Your task to perform on an android device: Set the phone to "Do not disturb". Image 0: 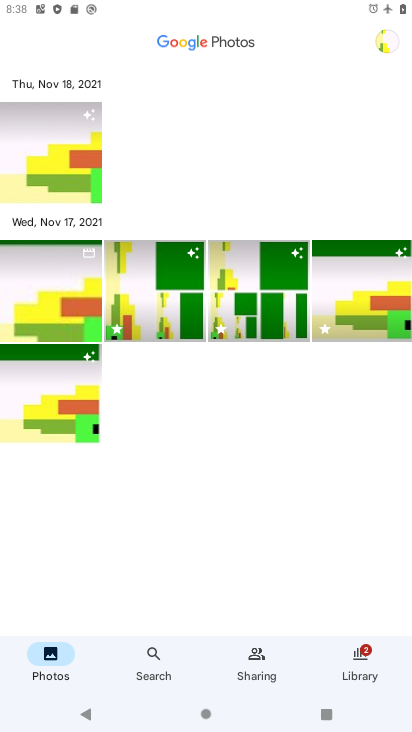
Step 0: press home button
Your task to perform on an android device: Set the phone to "Do not disturb". Image 1: 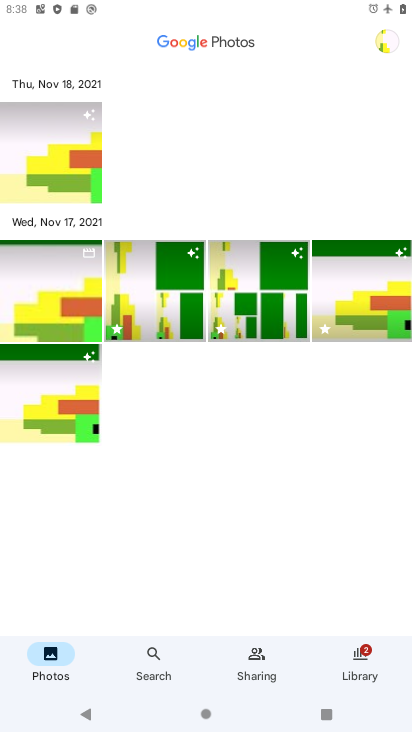
Step 1: press home button
Your task to perform on an android device: Set the phone to "Do not disturb". Image 2: 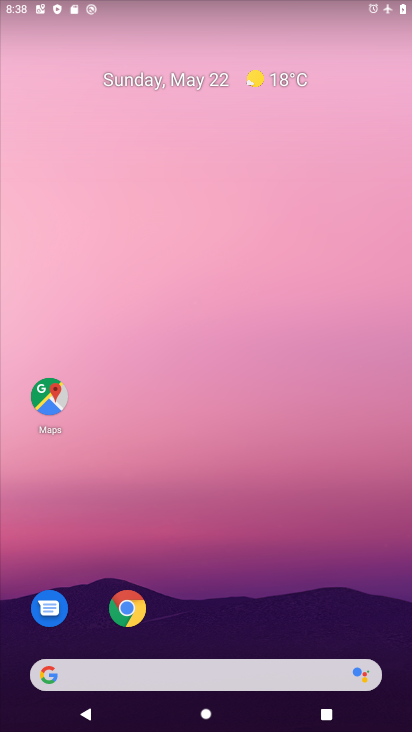
Step 2: drag from (227, 697) to (200, 19)
Your task to perform on an android device: Set the phone to "Do not disturb". Image 3: 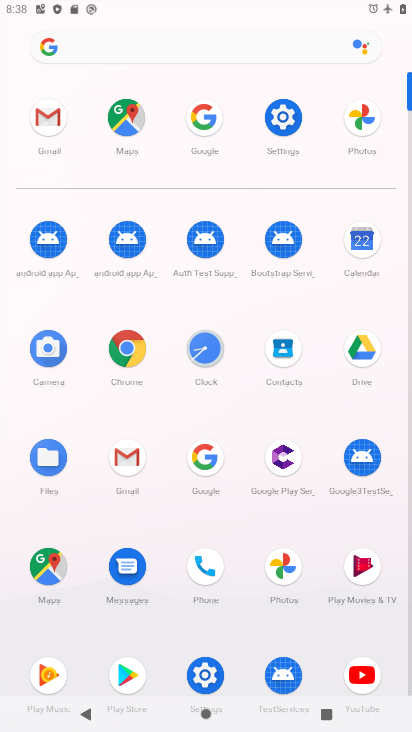
Step 3: click (287, 115)
Your task to perform on an android device: Set the phone to "Do not disturb". Image 4: 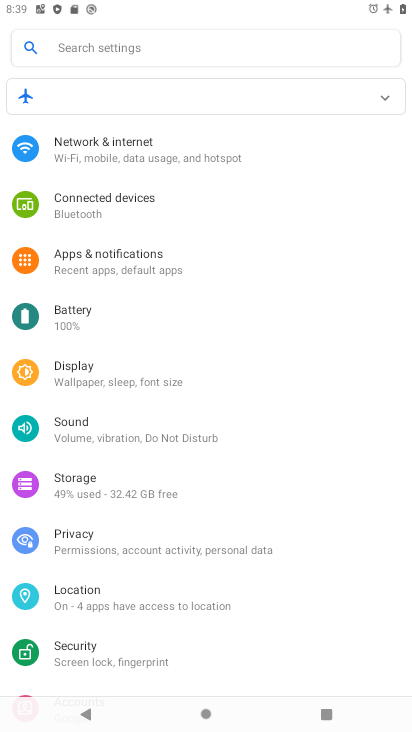
Step 4: click (123, 436)
Your task to perform on an android device: Set the phone to "Do not disturb". Image 5: 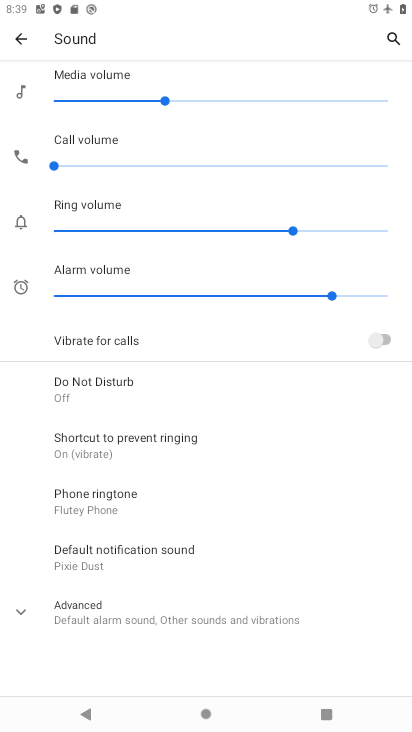
Step 5: click (71, 388)
Your task to perform on an android device: Set the phone to "Do not disturb". Image 6: 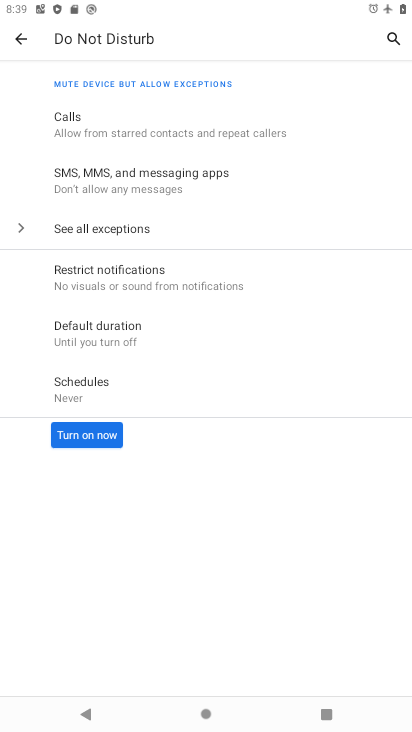
Step 6: click (86, 439)
Your task to perform on an android device: Set the phone to "Do not disturb". Image 7: 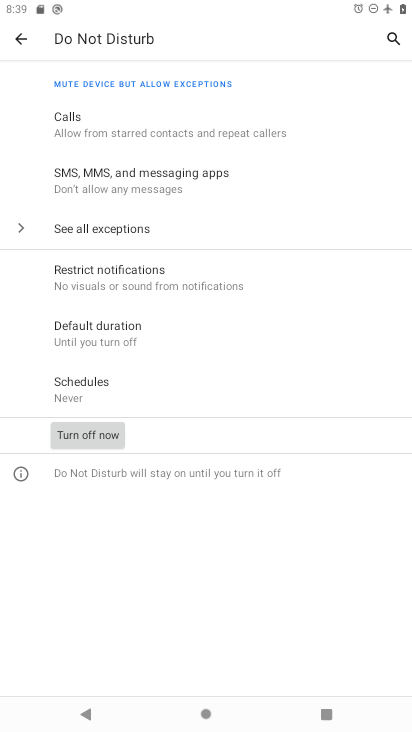
Step 7: task complete